Your task to perform on an android device: Empty the shopping cart on ebay. Image 0: 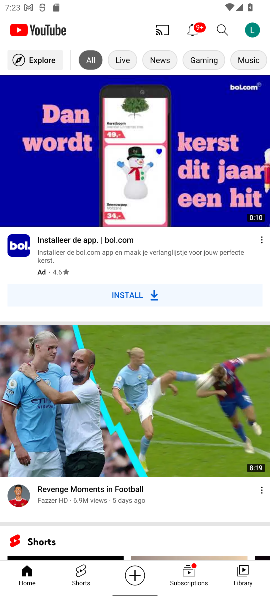
Step 0: press home button
Your task to perform on an android device: Empty the shopping cart on ebay. Image 1: 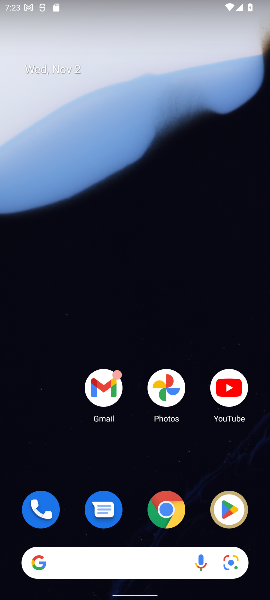
Step 1: click (115, 560)
Your task to perform on an android device: Empty the shopping cart on ebay. Image 2: 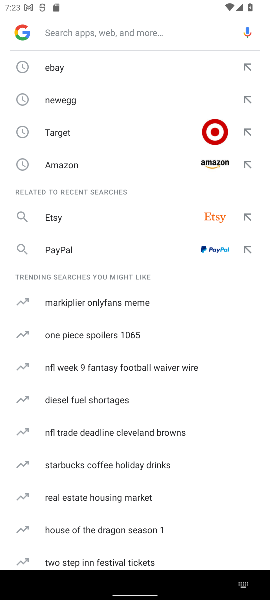
Step 2: click (50, 66)
Your task to perform on an android device: Empty the shopping cart on ebay. Image 3: 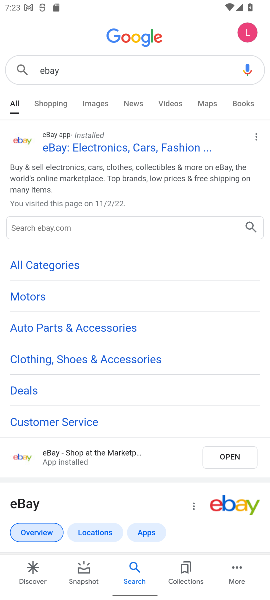
Step 3: click (28, 501)
Your task to perform on an android device: Empty the shopping cart on ebay. Image 4: 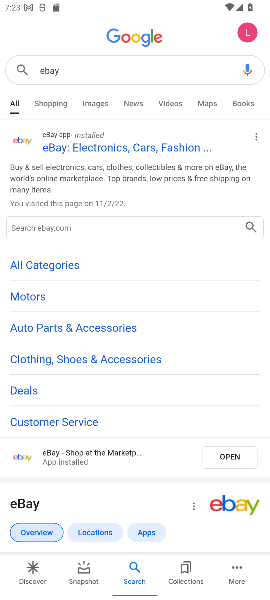
Step 4: click (28, 501)
Your task to perform on an android device: Empty the shopping cart on ebay. Image 5: 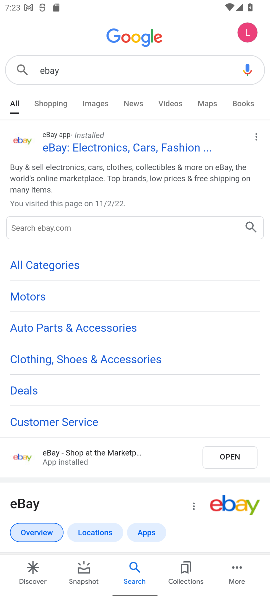
Step 5: drag from (214, 392) to (198, 272)
Your task to perform on an android device: Empty the shopping cart on ebay. Image 6: 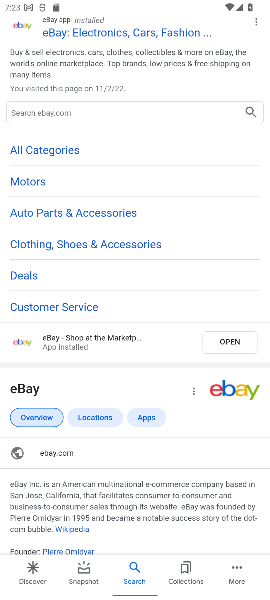
Step 6: click (55, 454)
Your task to perform on an android device: Empty the shopping cart on ebay. Image 7: 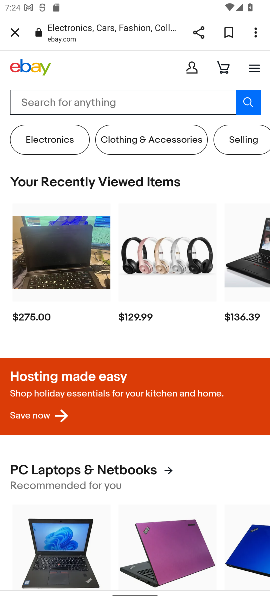
Step 7: click (226, 69)
Your task to perform on an android device: Empty the shopping cart on ebay. Image 8: 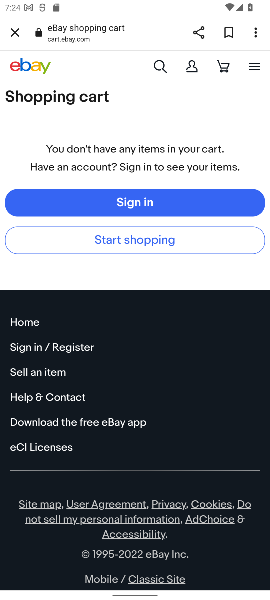
Step 8: task complete